Your task to perform on an android device: choose inbox layout in the gmail app Image 0: 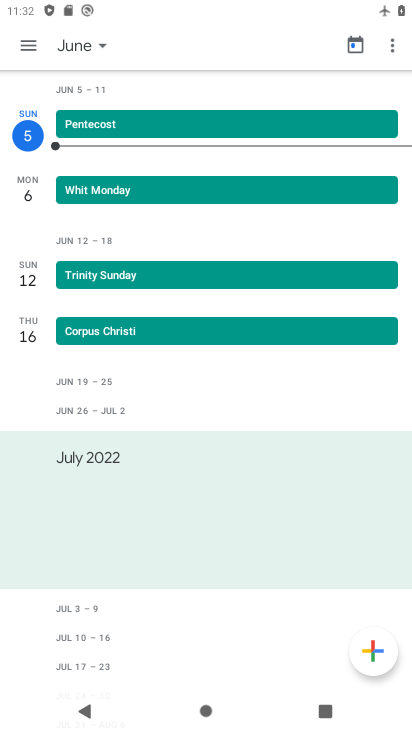
Step 0: drag from (372, 1) to (318, 517)
Your task to perform on an android device: choose inbox layout in the gmail app Image 1: 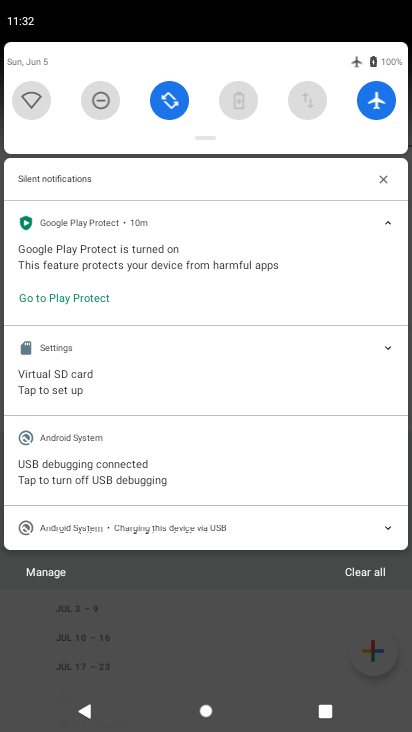
Step 1: press home button
Your task to perform on an android device: choose inbox layout in the gmail app Image 2: 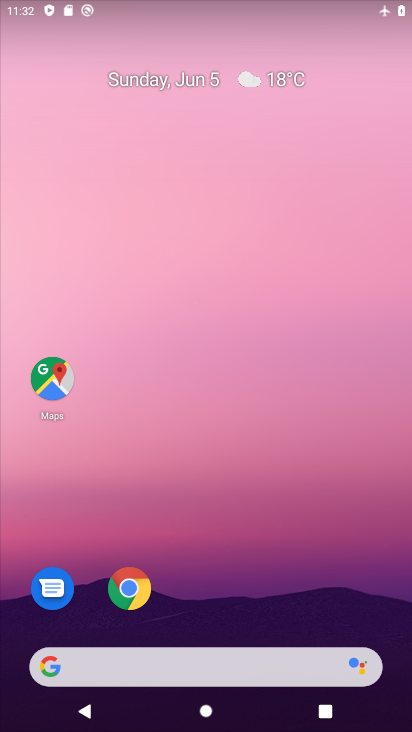
Step 2: drag from (292, 597) to (184, 157)
Your task to perform on an android device: choose inbox layout in the gmail app Image 3: 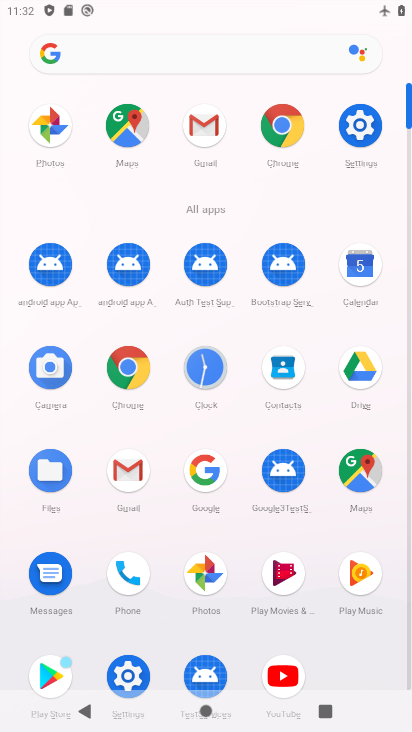
Step 3: click (195, 125)
Your task to perform on an android device: choose inbox layout in the gmail app Image 4: 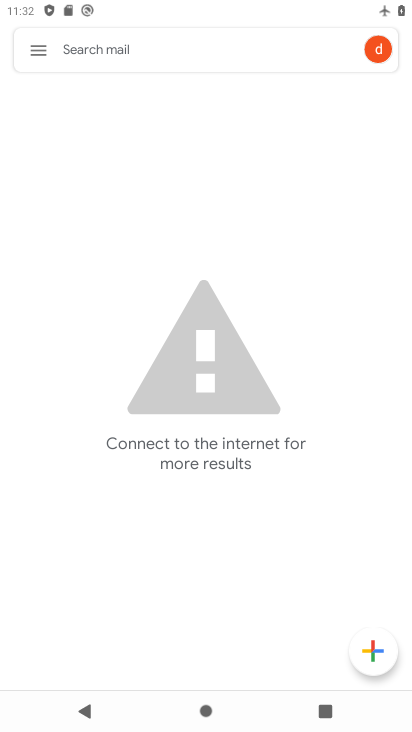
Step 4: click (34, 44)
Your task to perform on an android device: choose inbox layout in the gmail app Image 5: 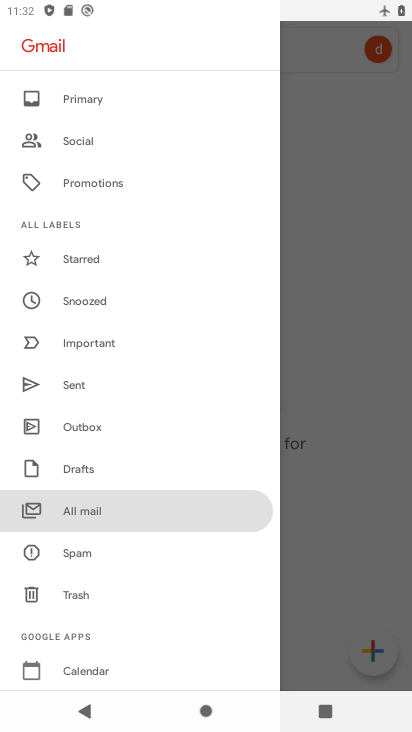
Step 5: drag from (133, 644) to (123, 368)
Your task to perform on an android device: choose inbox layout in the gmail app Image 6: 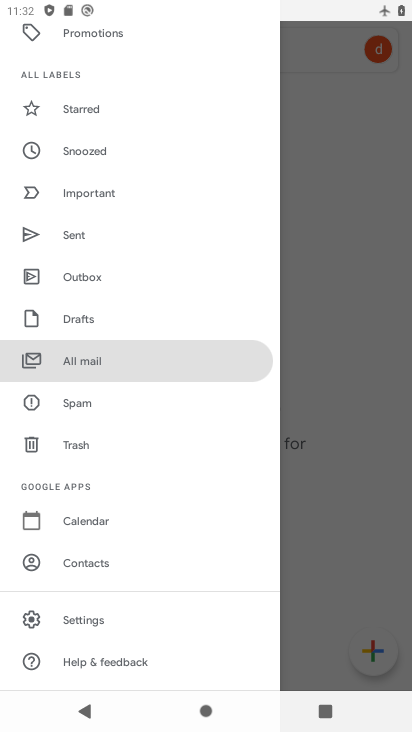
Step 6: click (122, 617)
Your task to perform on an android device: choose inbox layout in the gmail app Image 7: 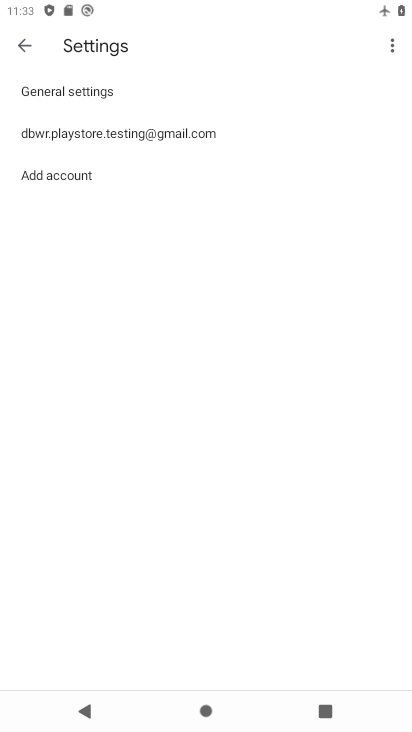
Step 7: click (158, 141)
Your task to perform on an android device: choose inbox layout in the gmail app Image 8: 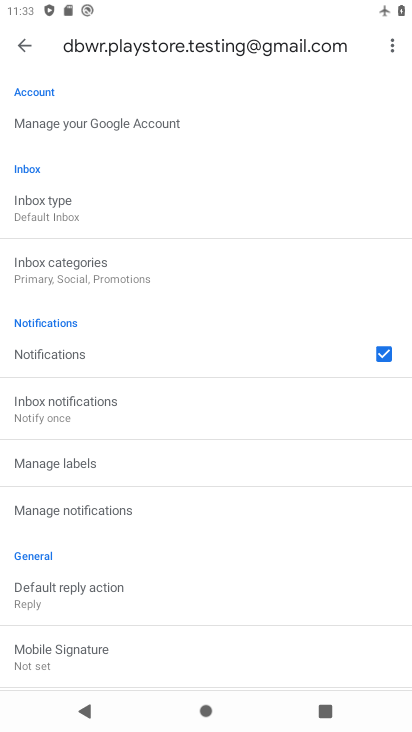
Step 8: click (95, 213)
Your task to perform on an android device: choose inbox layout in the gmail app Image 9: 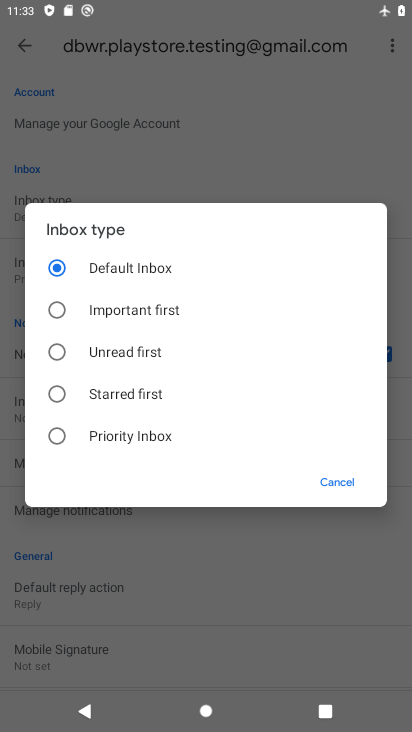
Step 9: click (152, 355)
Your task to perform on an android device: choose inbox layout in the gmail app Image 10: 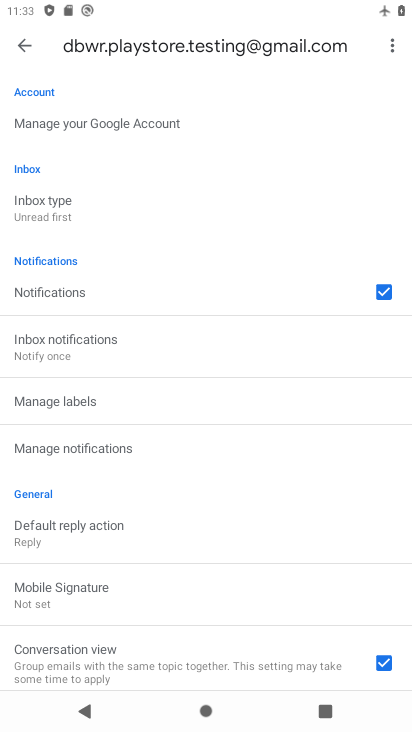
Step 10: task complete